Your task to perform on an android device: toggle priority inbox in the gmail app Image 0: 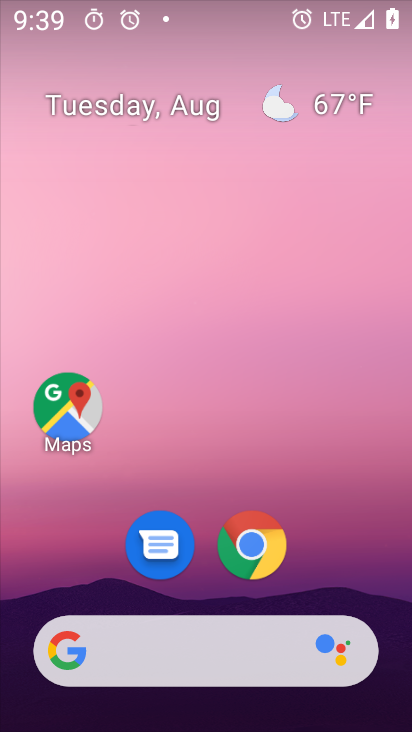
Step 0: drag from (187, 671) to (241, 56)
Your task to perform on an android device: toggle priority inbox in the gmail app Image 1: 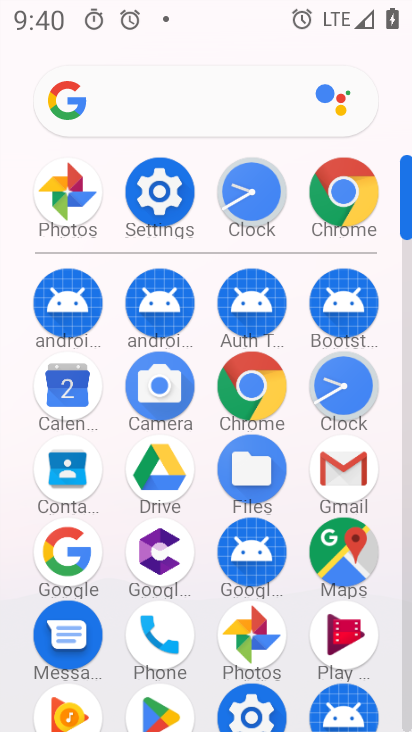
Step 1: click (350, 484)
Your task to perform on an android device: toggle priority inbox in the gmail app Image 2: 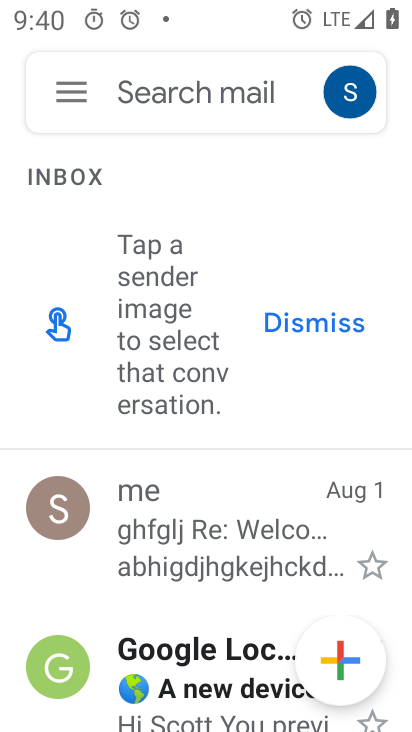
Step 2: click (74, 83)
Your task to perform on an android device: toggle priority inbox in the gmail app Image 3: 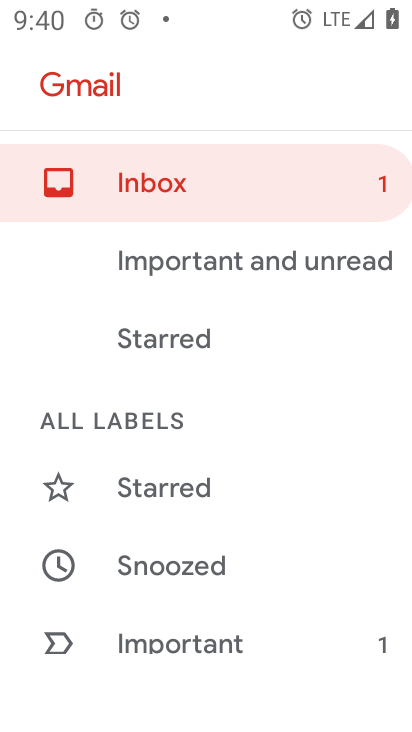
Step 3: drag from (137, 581) to (202, 37)
Your task to perform on an android device: toggle priority inbox in the gmail app Image 4: 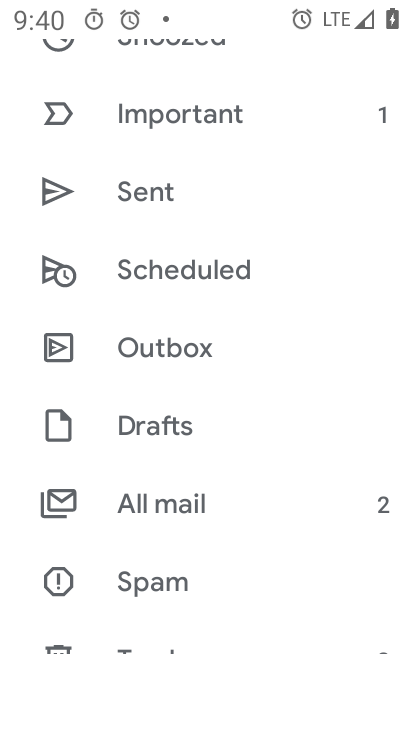
Step 4: drag from (164, 586) to (206, 2)
Your task to perform on an android device: toggle priority inbox in the gmail app Image 5: 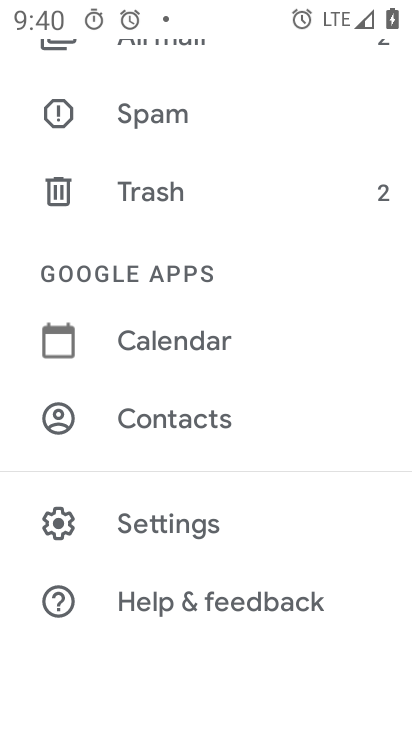
Step 5: click (171, 532)
Your task to perform on an android device: toggle priority inbox in the gmail app Image 6: 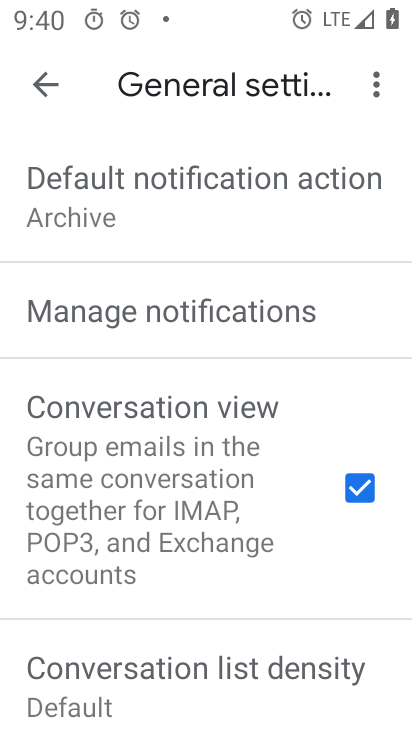
Step 6: click (47, 92)
Your task to perform on an android device: toggle priority inbox in the gmail app Image 7: 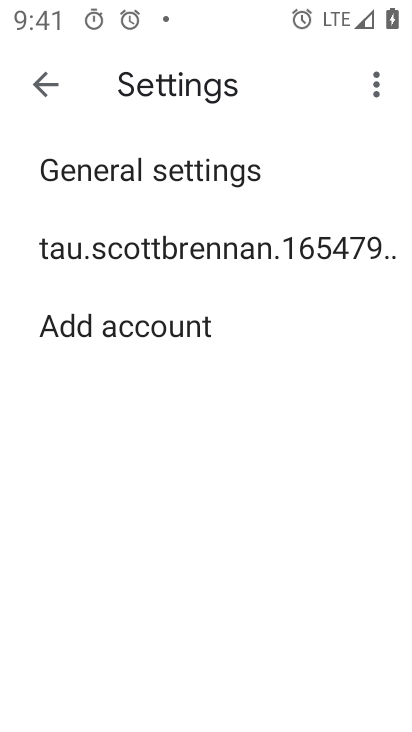
Step 7: click (162, 248)
Your task to perform on an android device: toggle priority inbox in the gmail app Image 8: 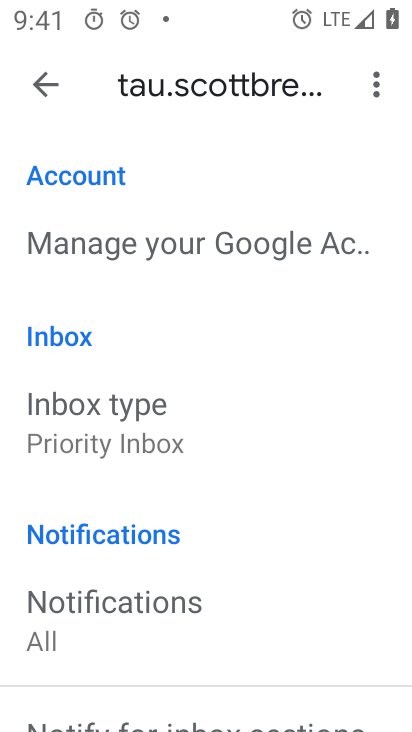
Step 8: click (164, 431)
Your task to perform on an android device: toggle priority inbox in the gmail app Image 9: 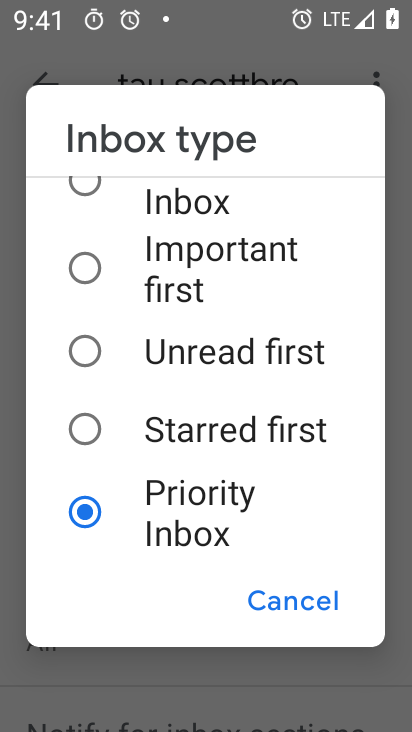
Step 9: click (81, 271)
Your task to perform on an android device: toggle priority inbox in the gmail app Image 10: 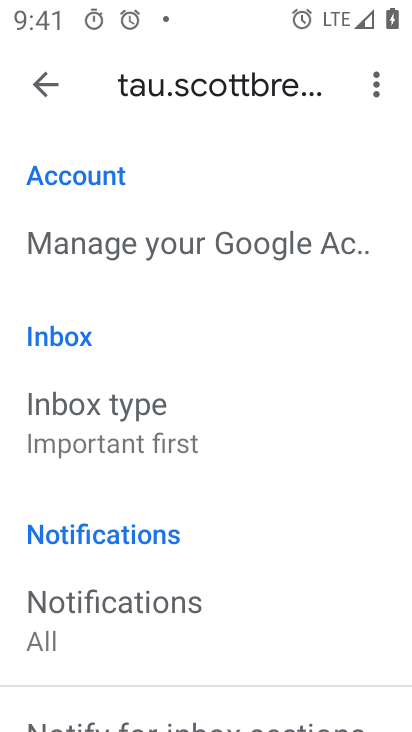
Step 10: task complete